Your task to perform on an android device: Go to calendar. Show me events next week Image 0: 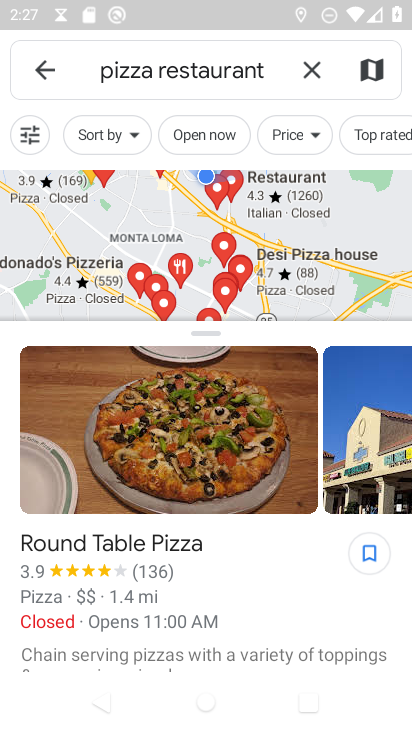
Step 0: press home button
Your task to perform on an android device: Go to calendar. Show me events next week Image 1: 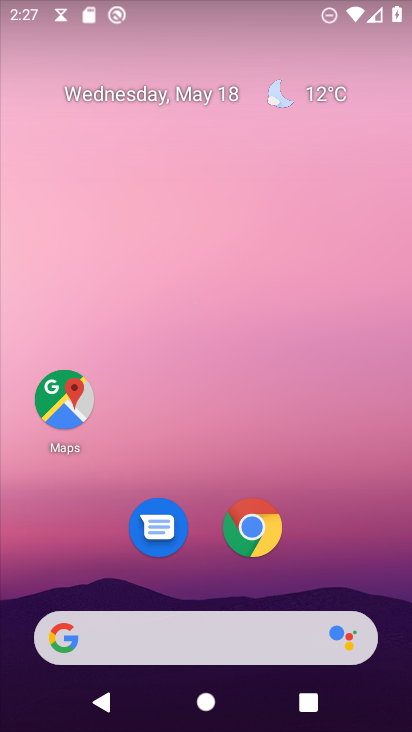
Step 1: click (144, 93)
Your task to perform on an android device: Go to calendar. Show me events next week Image 2: 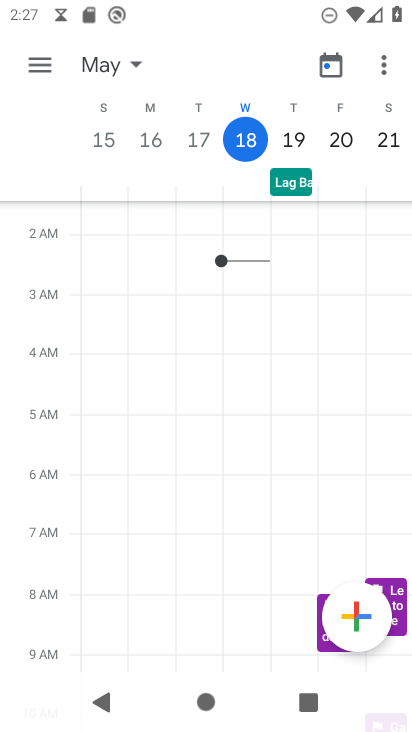
Step 2: click (131, 64)
Your task to perform on an android device: Go to calendar. Show me events next week Image 3: 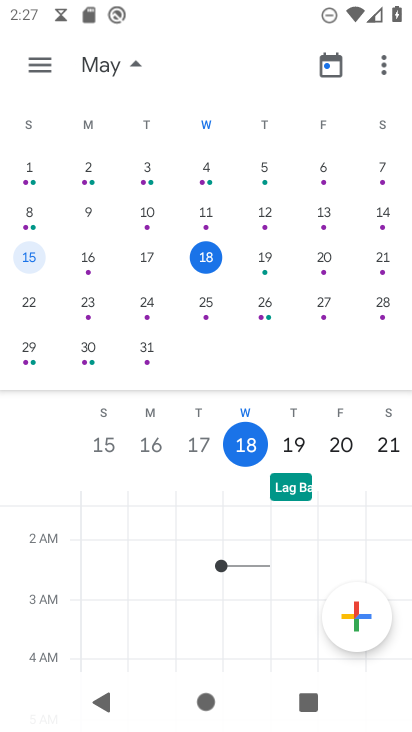
Step 3: click (33, 297)
Your task to perform on an android device: Go to calendar. Show me events next week Image 4: 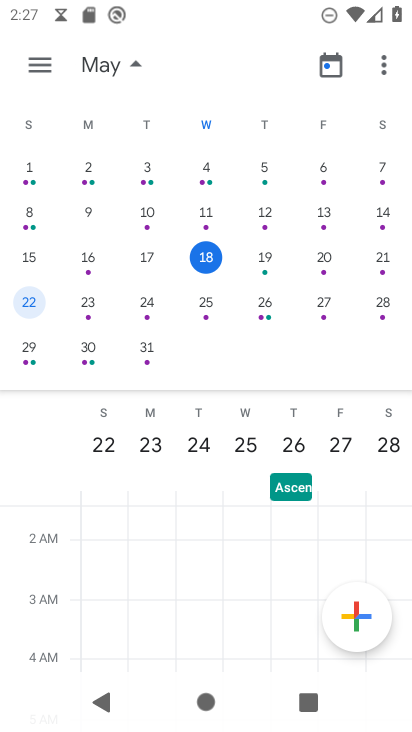
Step 4: task complete